Your task to perform on an android device: turn vacation reply on in the gmail app Image 0: 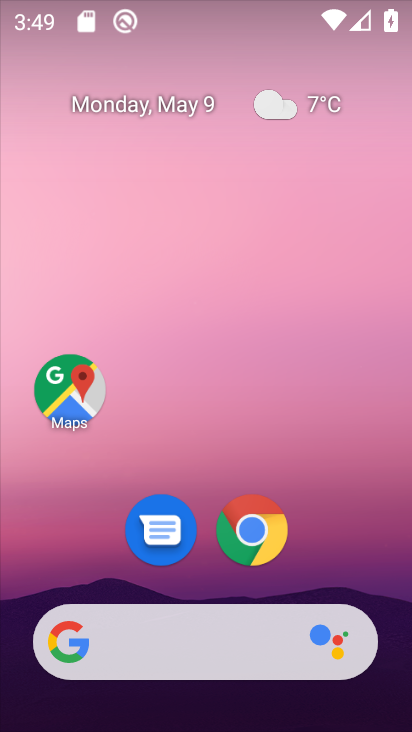
Step 0: drag from (203, 597) to (322, 84)
Your task to perform on an android device: turn vacation reply on in the gmail app Image 1: 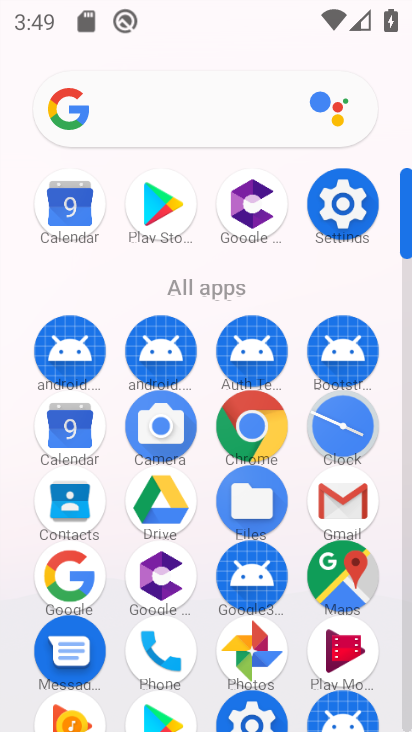
Step 1: click (327, 497)
Your task to perform on an android device: turn vacation reply on in the gmail app Image 2: 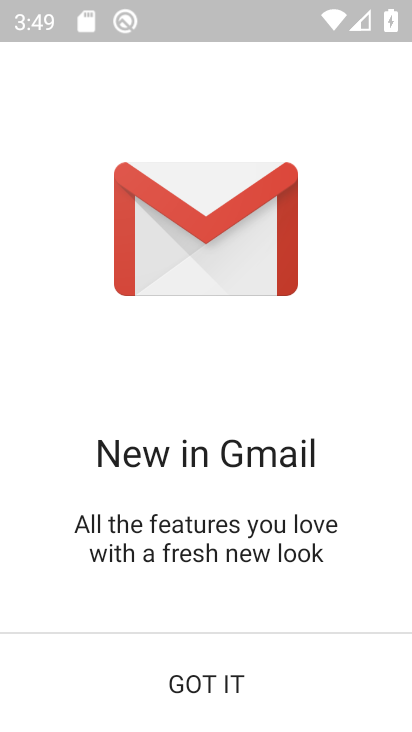
Step 2: click (203, 674)
Your task to perform on an android device: turn vacation reply on in the gmail app Image 3: 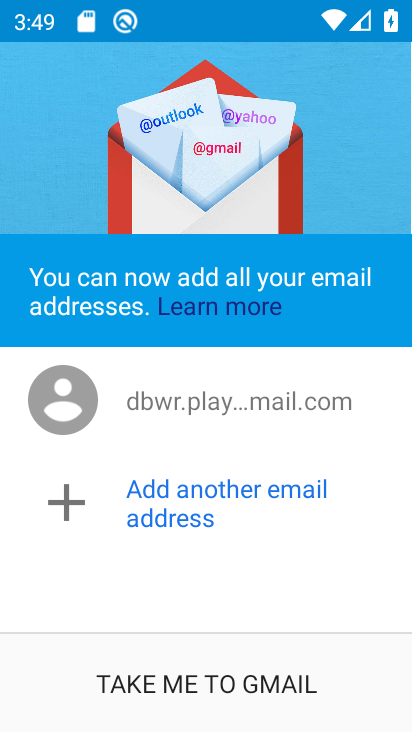
Step 3: click (209, 681)
Your task to perform on an android device: turn vacation reply on in the gmail app Image 4: 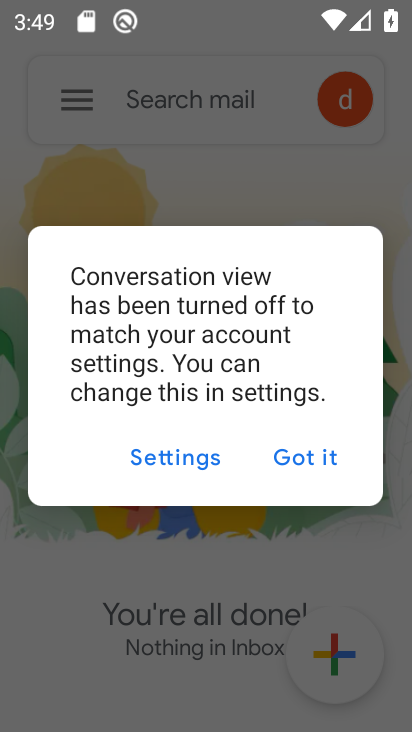
Step 4: click (282, 452)
Your task to perform on an android device: turn vacation reply on in the gmail app Image 5: 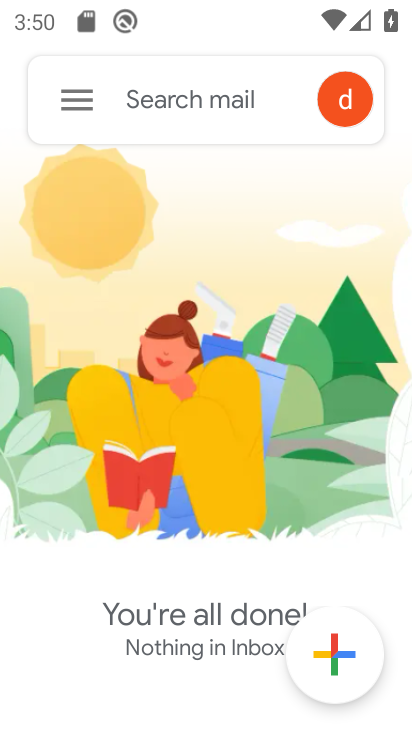
Step 5: click (74, 95)
Your task to perform on an android device: turn vacation reply on in the gmail app Image 6: 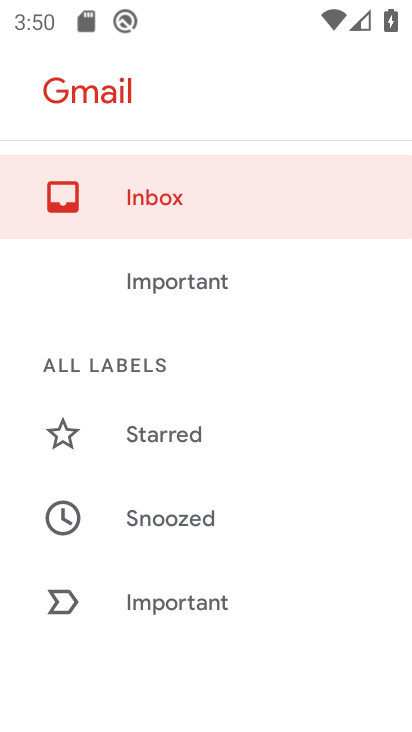
Step 6: drag from (151, 588) to (251, 9)
Your task to perform on an android device: turn vacation reply on in the gmail app Image 7: 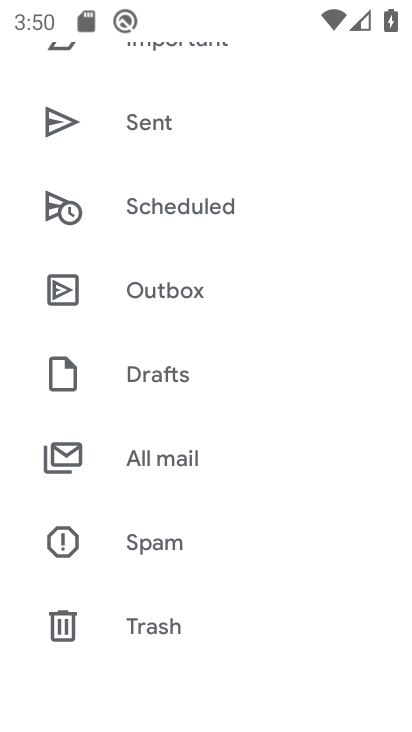
Step 7: drag from (152, 604) to (238, 139)
Your task to perform on an android device: turn vacation reply on in the gmail app Image 8: 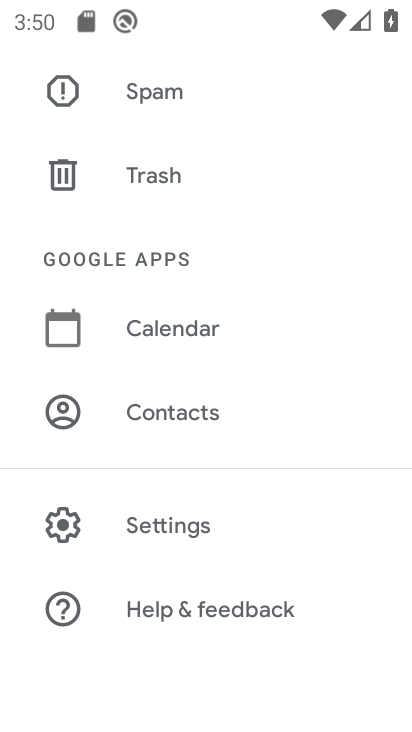
Step 8: click (161, 530)
Your task to perform on an android device: turn vacation reply on in the gmail app Image 9: 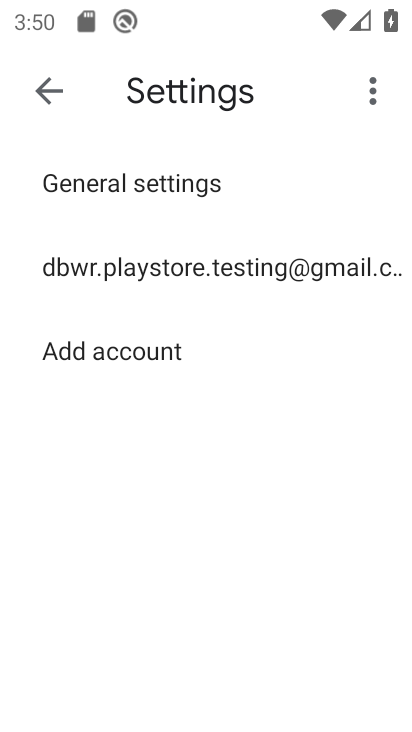
Step 9: click (170, 285)
Your task to perform on an android device: turn vacation reply on in the gmail app Image 10: 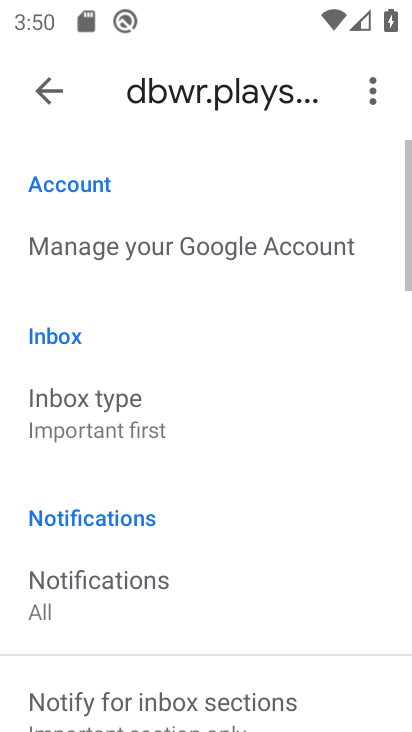
Step 10: drag from (170, 642) to (256, 154)
Your task to perform on an android device: turn vacation reply on in the gmail app Image 11: 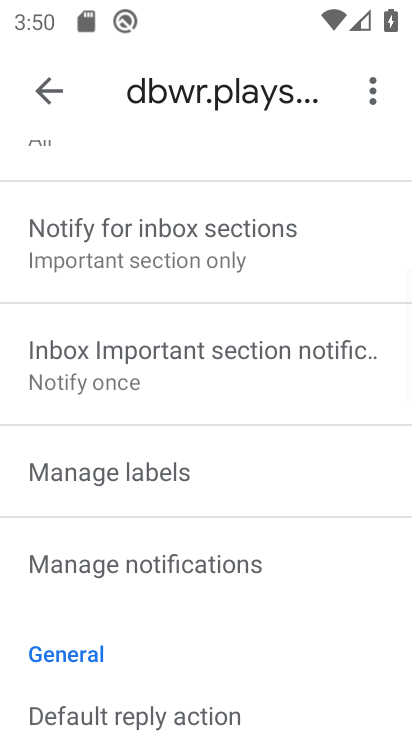
Step 11: drag from (142, 624) to (225, 121)
Your task to perform on an android device: turn vacation reply on in the gmail app Image 12: 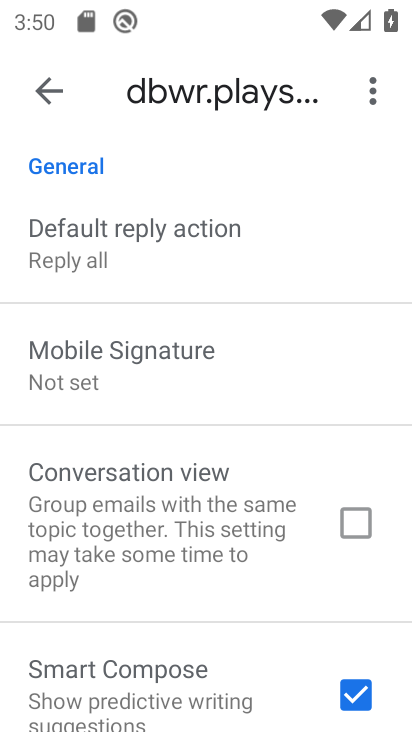
Step 12: drag from (158, 660) to (223, 355)
Your task to perform on an android device: turn vacation reply on in the gmail app Image 13: 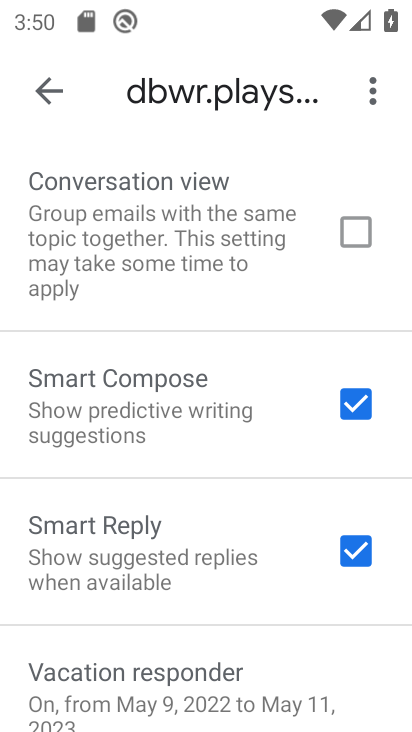
Step 13: click (148, 691)
Your task to perform on an android device: turn vacation reply on in the gmail app Image 14: 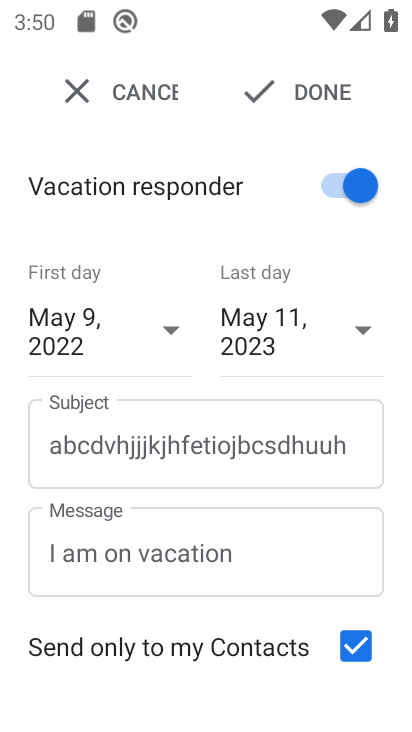
Step 14: task complete